Your task to perform on an android device: set the timer Image 0: 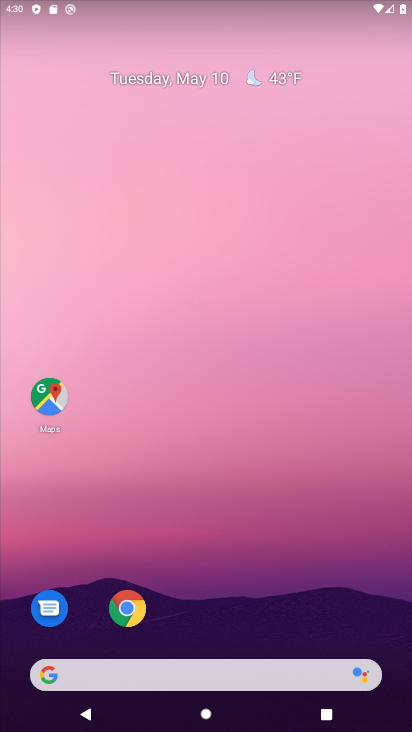
Step 0: drag from (199, 574) to (314, 68)
Your task to perform on an android device: set the timer Image 1: 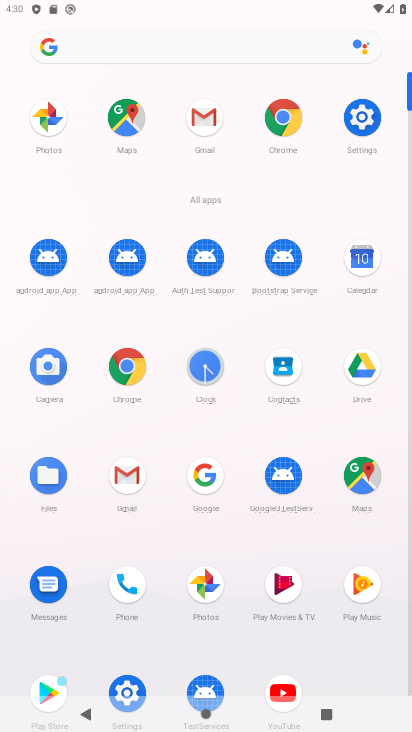
Step 1: click (202, 367)
Your task to perform on an android device: set the timer Image 2: 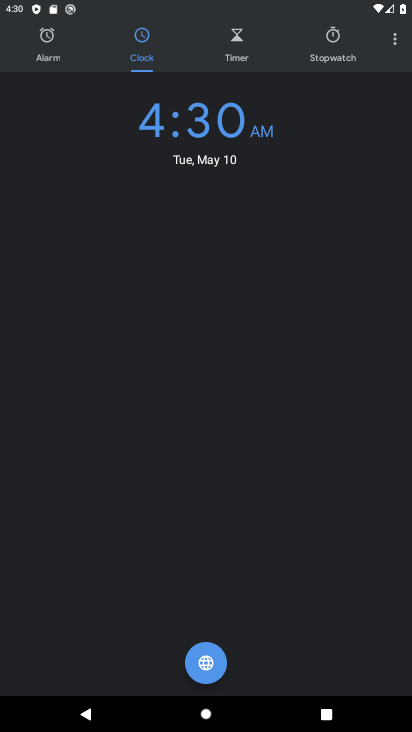
Step 2: click (231, 38)
Your task to perform on an android device: set the timer Image 3: 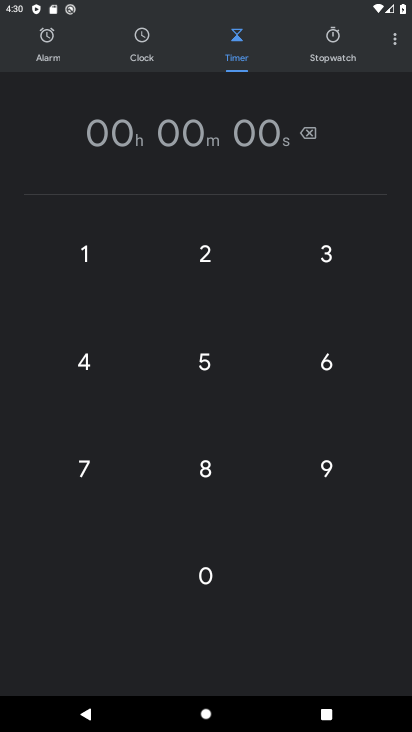
Step 3: click (194, 250)
Your task to perform on an android device: set the timer Image 4: 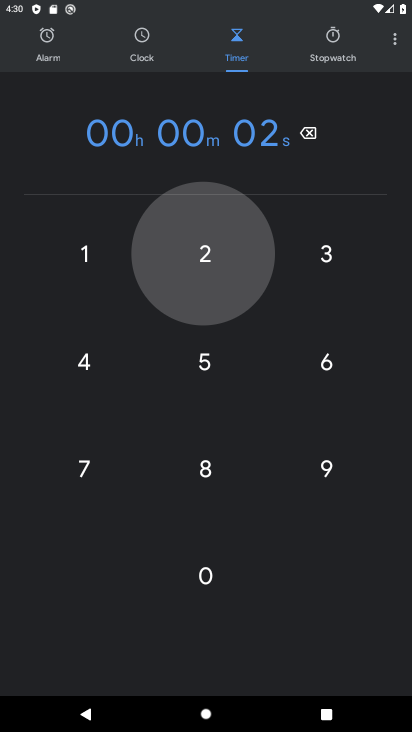
Step 4: click (198, 371)
Your task to perform on an android device: set the timer Image 5: 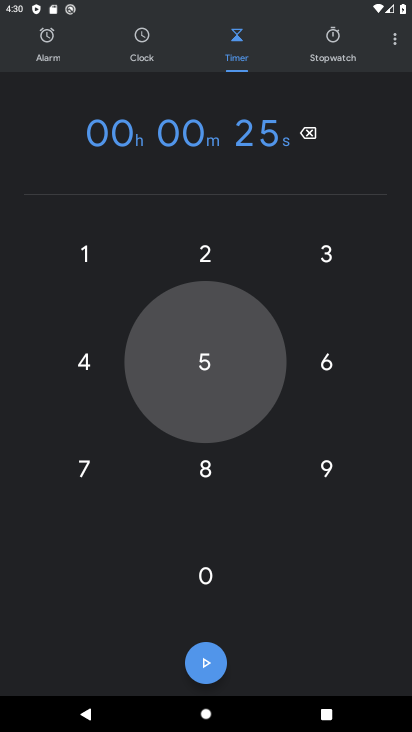
Step 5: click (330, 237)
Your task to perform on an android device: set the timer Image 6: 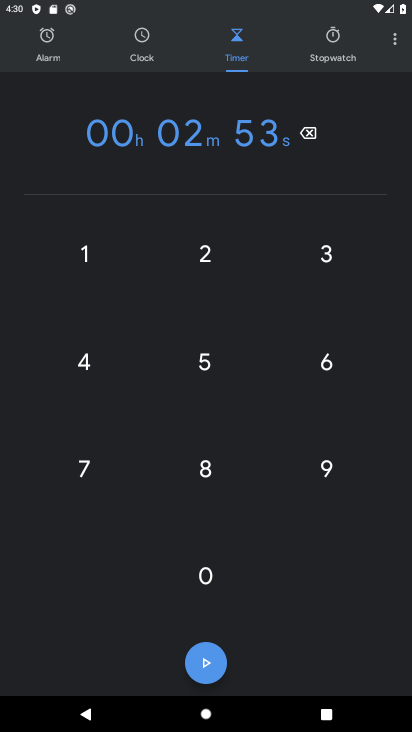
Step 6: click (92, 331)
Your task to perform on an android device: set the timer Image 7: 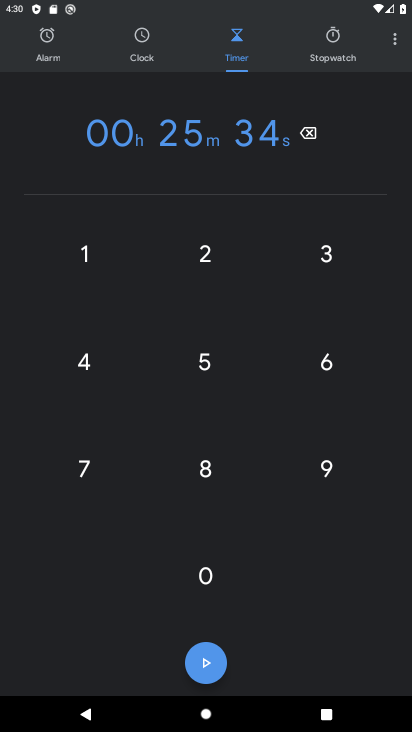
Step 7: task complete